Your task to perform on an android device: Show me recent news Image 0: 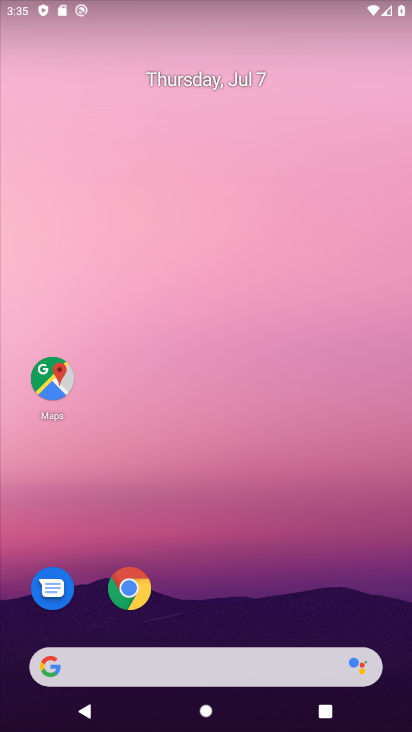
Step 0: drag from (240, 668) to (277, 121)
Your task to perform on an android device: Show me recent news Image 1: 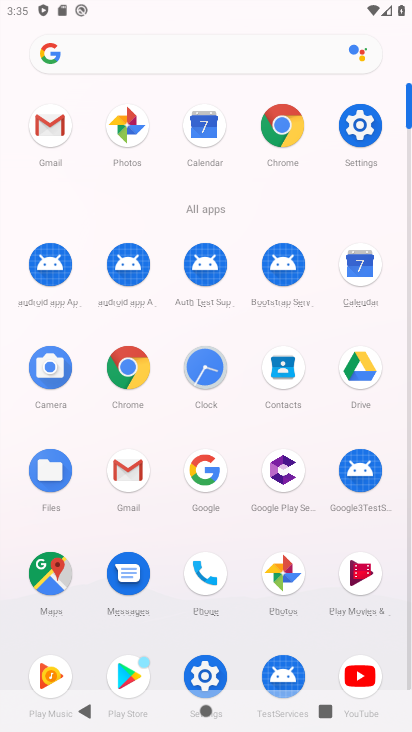
Step 1: click (145, 359)
Your task to perform on an android device: Show me recent news Image 2: 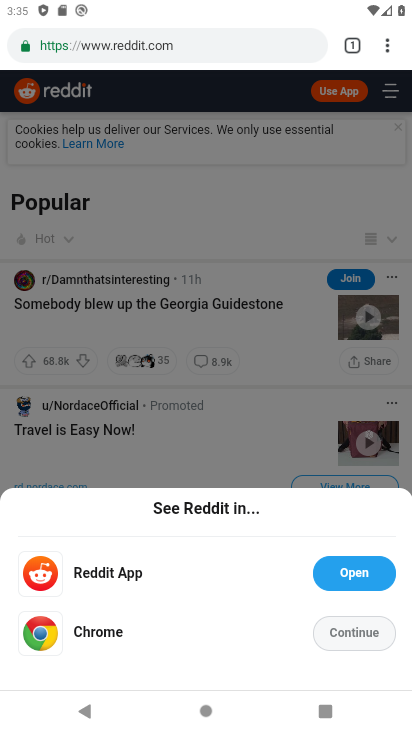
Step 2: click (196, 50)
Your task to perform on an android device: Show me recent news Image 3: 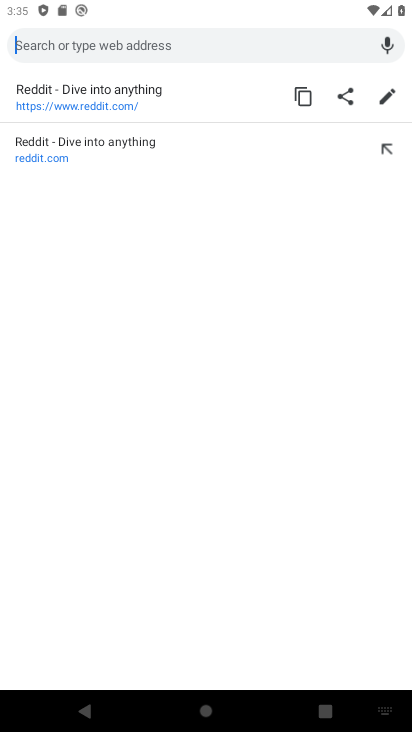
Step 3: type "recent news"
Your task to perform on an android device: Show me recent news Image 4: 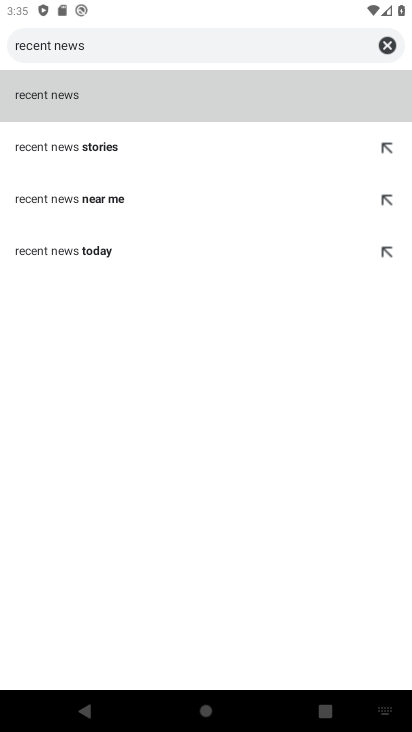
Step 4: click (139, 89)
Your task to perform on an android device: Show me recent news Image 5: 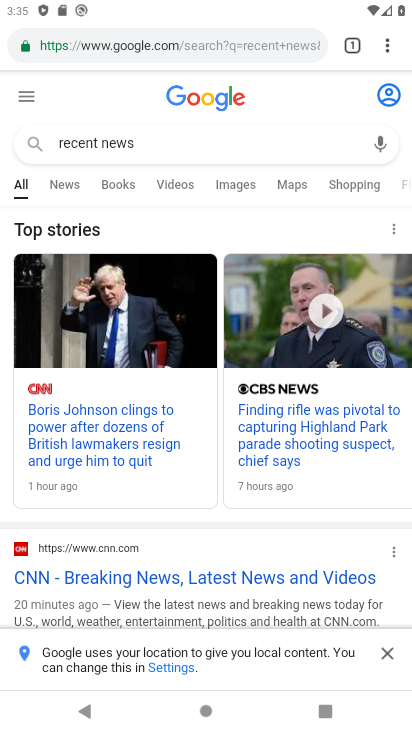
Step 5: task complete